Your task to perform on an android device: delete the emails in spam in the gmail app Image 0: 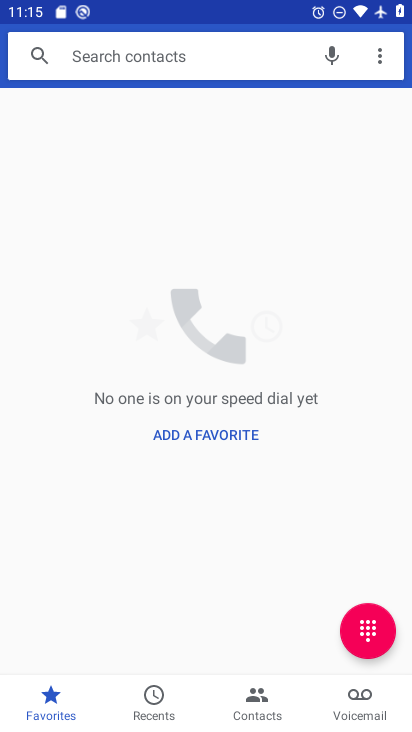
Step 0: press home button
Your task to perform on an android device: delete the emails in spam in the gmail app Image 1: 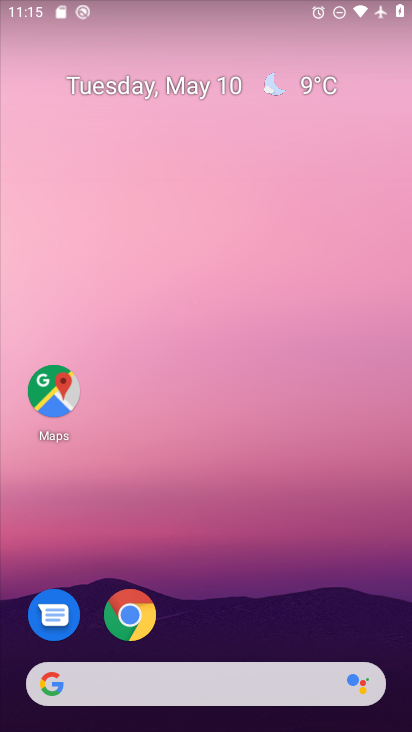
Step 1: drag from (346, 620) to (187, 83)
Your task to perform on an android device: delete the emails in spam in the gmail app Image 2: 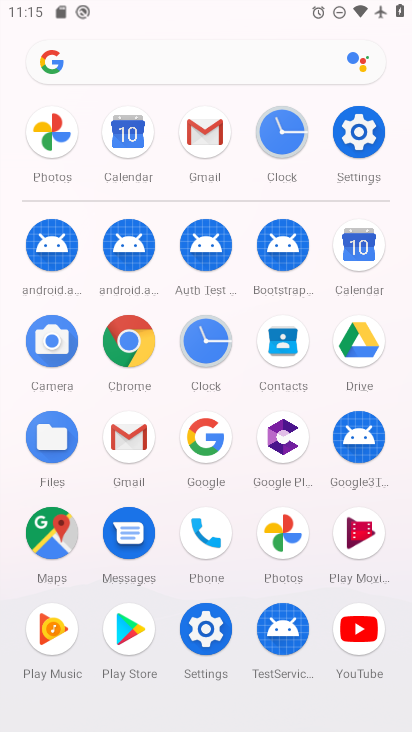
Step 2: click (123, 432)
Your task to perform on an android device: delete the emails in spam in the gmail app Image 3: 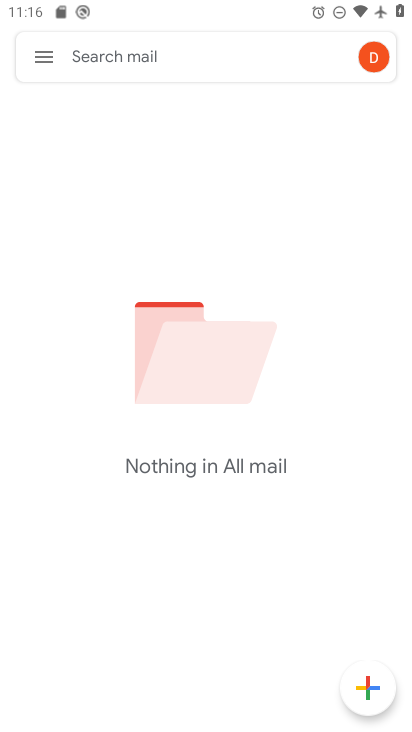
Step 3: click (39, 56)
Your task to perform on an android device: delete the emails in spam in the gmail app Image 4: 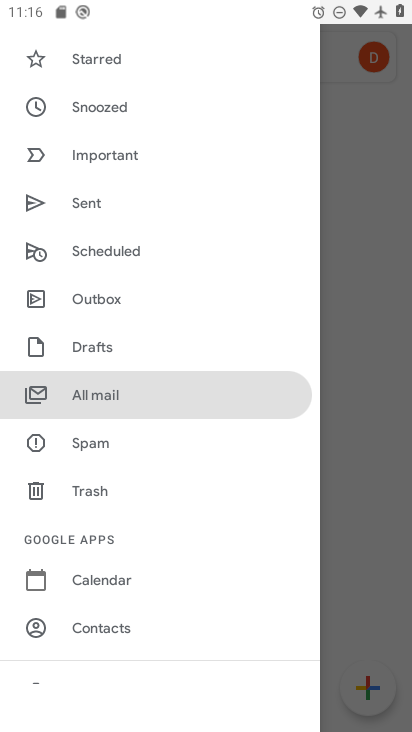
Step 4: click (97, 443)
Your task to perform on an android device: delete the emails in spam in the gmail app Image 5: 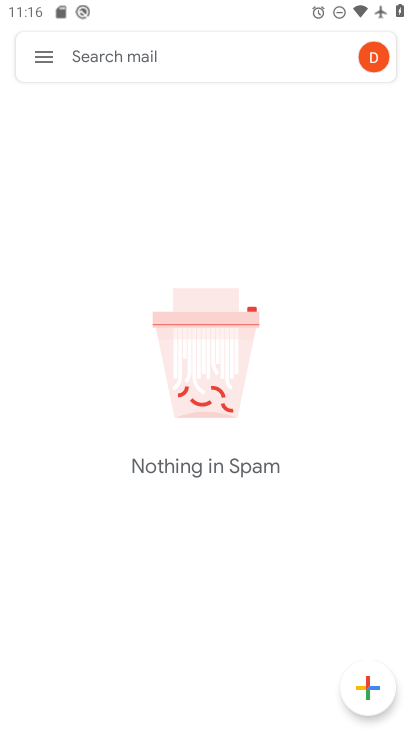
Step 5: task complete